Your task to perform on an android device: delete the emails in spam in the gmail app Image 0: 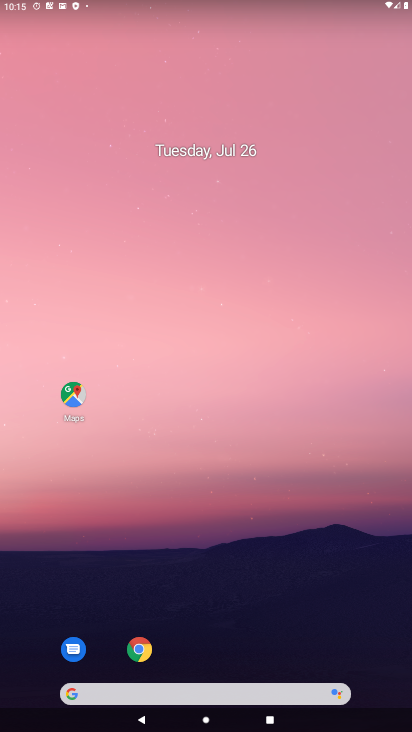
Step 0: drag from (200, 667) to (206, 87)
Your task to perform on an android device: delete the emails in spam in the gmail app Image 1: 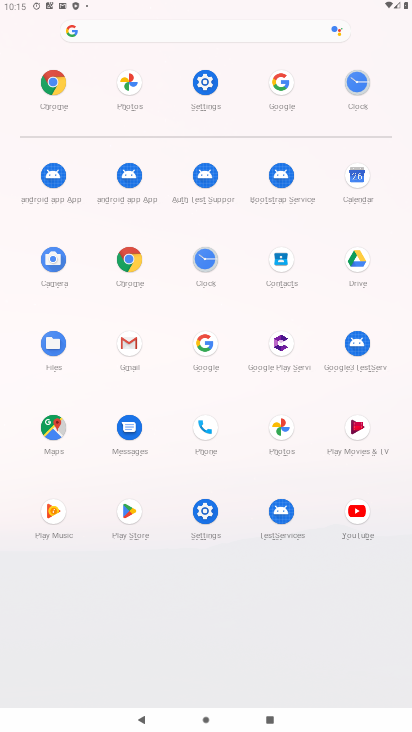
Step 1: click (127, 343)
Your task to perform on an android device: delete the emails in spam in the gmail app Image 2: 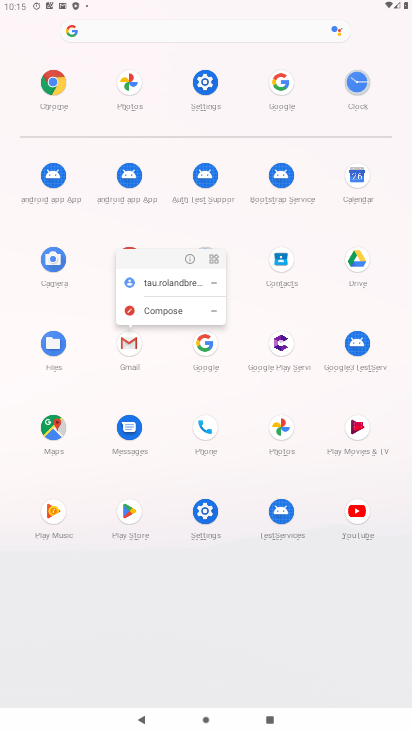
Step 2: click (190, 254)
Your task to perform on an android device: delete the emails in spam in the gmail app Image 3: 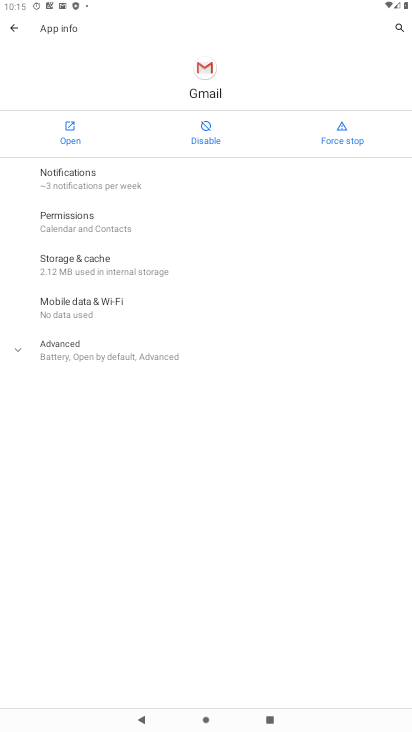
Step 3: click (59, 142)
Your task to perform on an android device: delete the emails in spam in the gmail app Image 4: 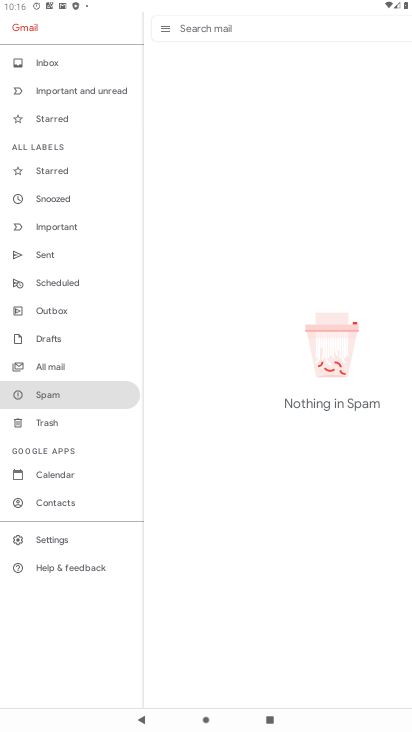
Step 4: click (40, 395)
Your task to perform on an android device: delete the emails in spam in the gmail app Image 5: 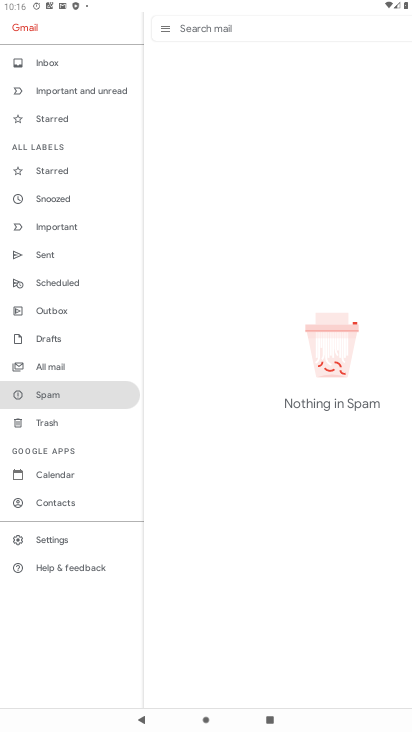
Step 5: drag from (275, 511) to (302, 195)
Your task to perform on an android device: delete the emails in spam in the gmail app Image 6: 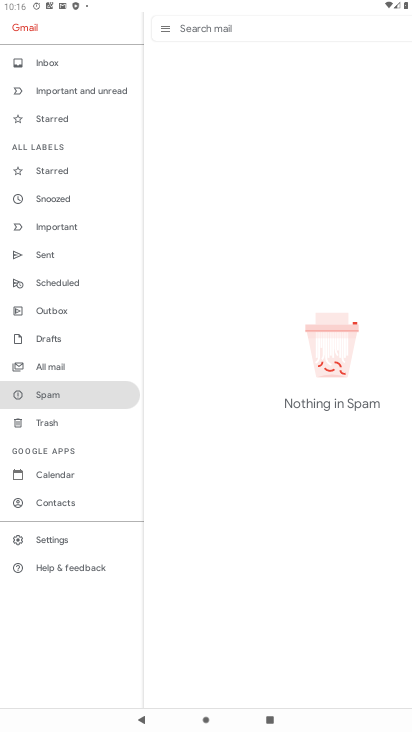
Step 6: drag from (301, 193) to (347, 605)
Your task to perform on an android device: delete the emails in spam in the gmail app Image 7: 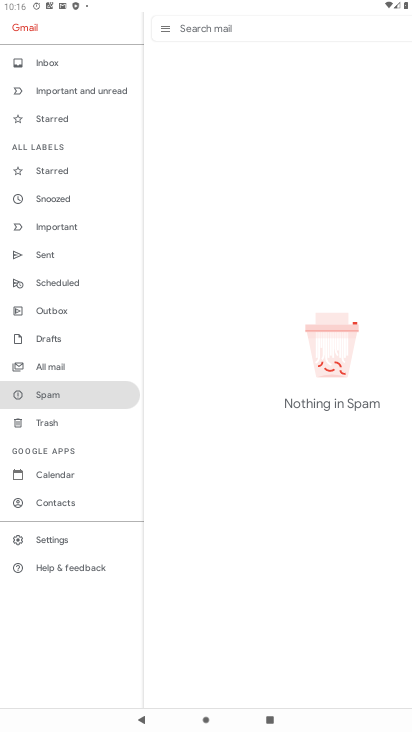
Step 7: drag from (336, 572) to (270, 123)
Your task to perform on an android device: delete the emails in spam in the gmail app Image 8: 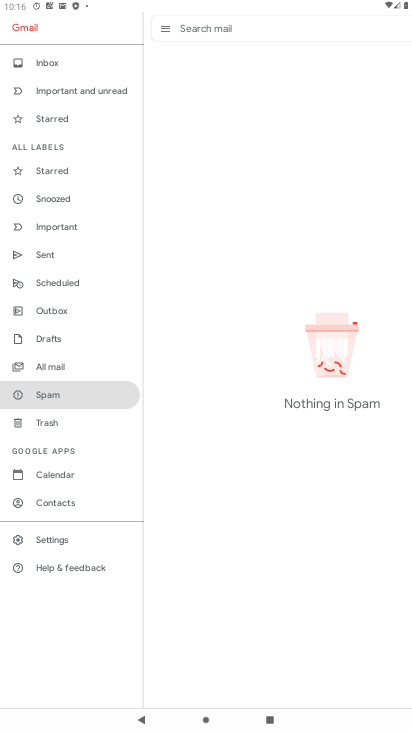
Step 8: click (21, 404)
Your task to perform on an android device: delete the emails in spam in the gmail app Image 9: 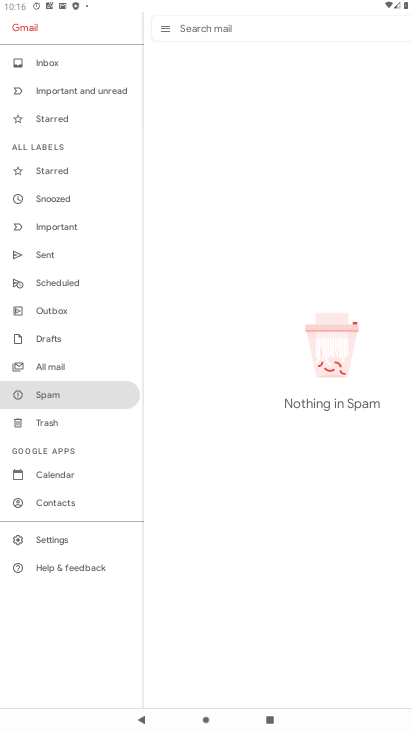
Step 9: task complete